Your task to perform on an android device: change the clock style Image 0: 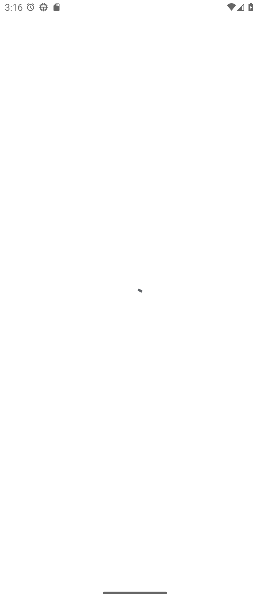
Step 0: press home button
Your task to perform on an android device: change the clock style Image 1: 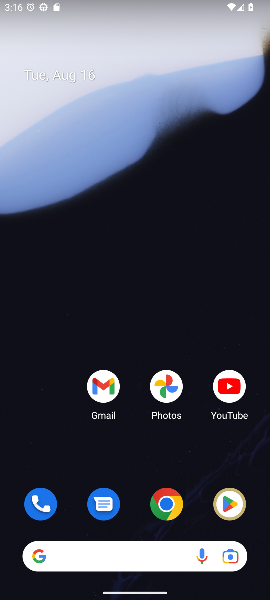
Step 1: drag from (138, 488) to (141, 46)
Your task to perform on an android device: change the clock style Image 2: 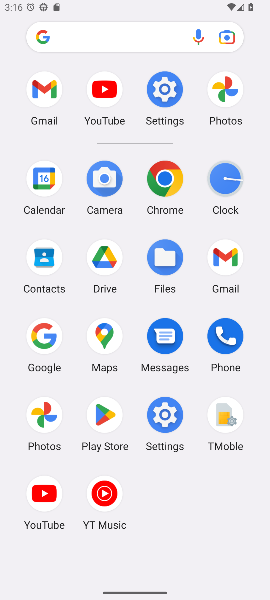
Step 2: click (226, 177)
Your task to perform on an android device: change the clock style Image 3: 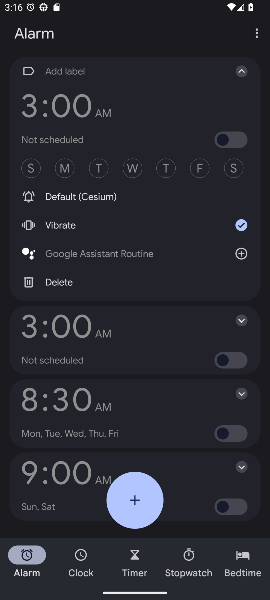
Step 3: click (255, 36)
Your task to perform on an android device: change the clock style Image 4: 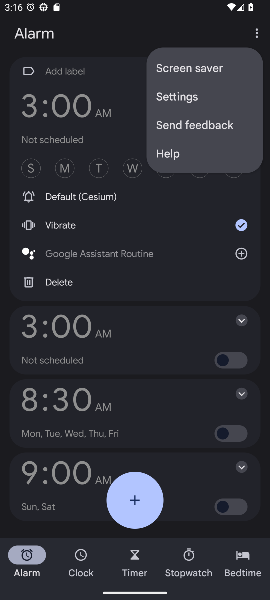
Step 4: click (169, 99)
Your task to perform on an android device: change the clock style Image 5: 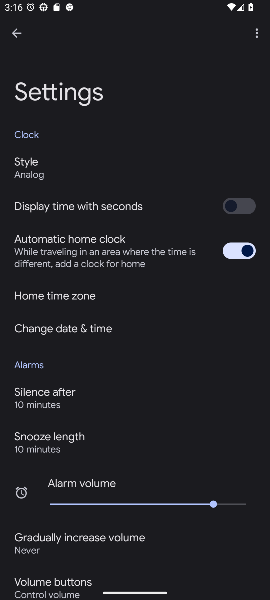
Step 5: click (30, 165)
Your task to perform on an android device: change the clock style Image 6: 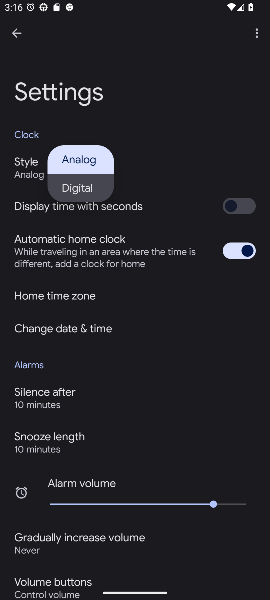
Step 6: click (68, 187)
Your task to perform on an android device: change the clock style Image 7: 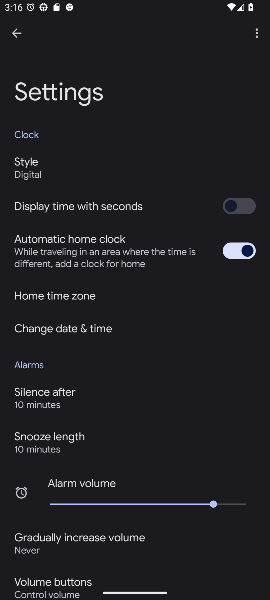
Step 7: task complete